Your task to perform on an android device: change alarm snooze length Image 0: 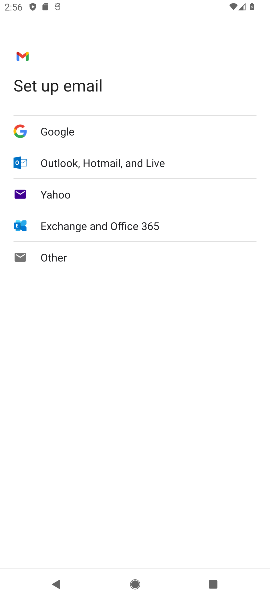
Step 0: press home button
Your task to perform on an android device: change alarm snooze length Image 1: 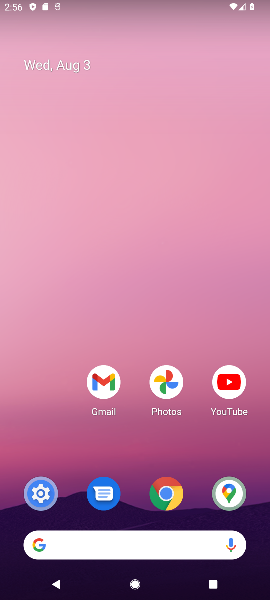
Step 1: drag from (42, 486) to (152, 83)
Your task to perform on an android device: change alarm snooze length Image 2: 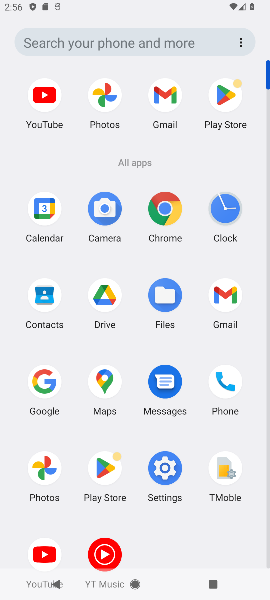
Step 2: click (224, 211)
Your task to perform on an android device: change alarm snooze length Image 3: 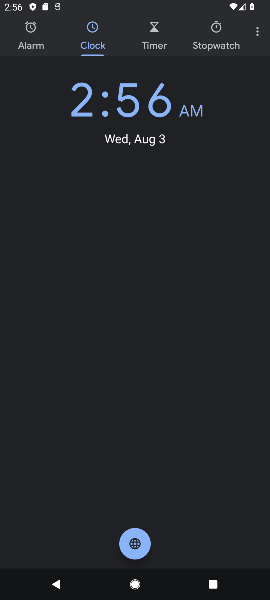
Step 3: click (262, 27)
Your task to perform on an android device: change alarm snooze length Image 4: 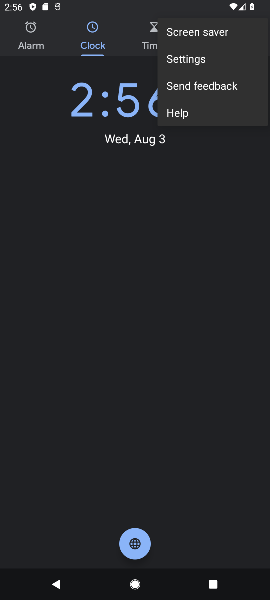
Step 4: click (206, 65)
Your task to perform on an android device: change alarm snooze length Image 5: 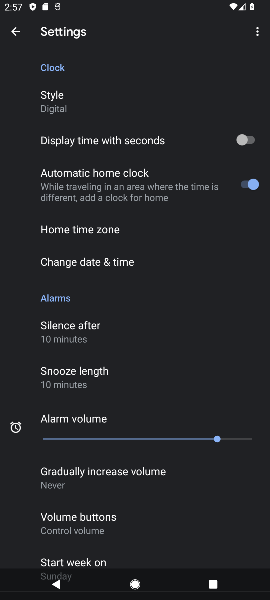
Step 5: click (59, 387)
Your task to perform on an android device: change alarm snooze length Image 6: 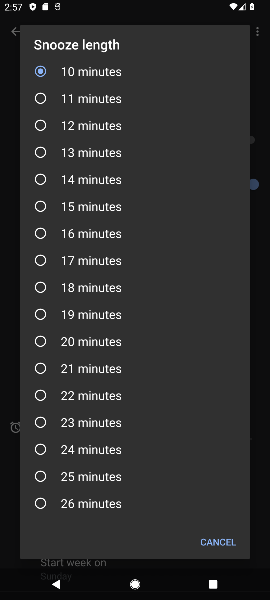
Step 6: click (68, 265)
Your task to perform on an android device: change alarm snooze length Image 7: 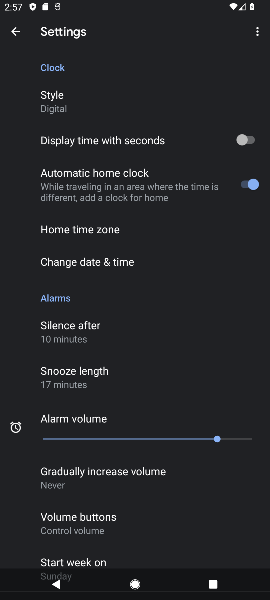
Step 7: task complete